Your task to perform on an android device: Open Android settings Image 0: 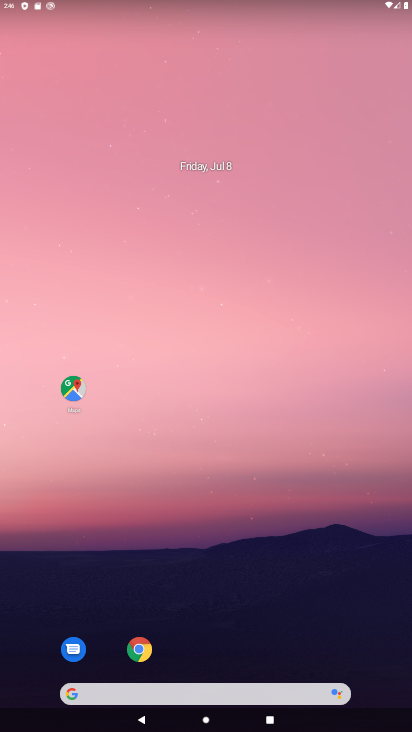
Step 0: drag from (204, 676) to (204, 177)
Your task to perform on an android device: Open Android settings Image 1: 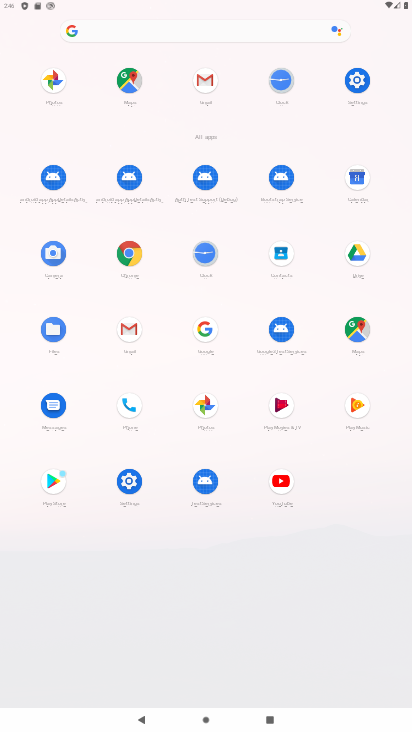
Step 1: click (342, 76)
Your task to perform on an android device: Open Android settings Image 2: 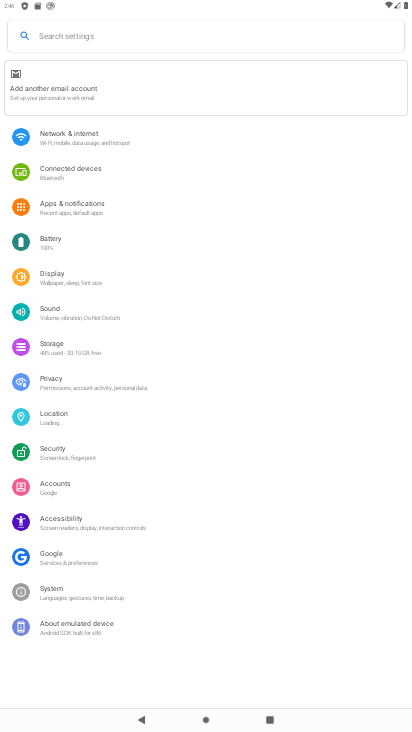
Step 2: drag from (237, 467) to (215, 141)
Your task to perform on an android device: Open Android settings Image 3: 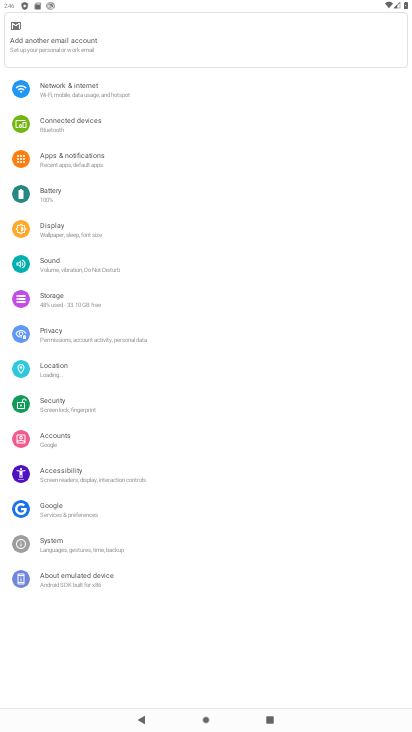
Step 3: click (51, 593)
Your task to perform on an android device: Open Android settings Image 4: 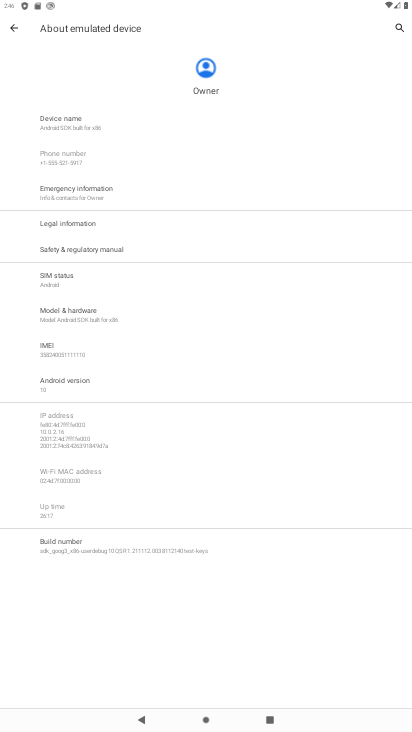
Step 4: drag from (173, 226) to (148, 661)
Your task to perform on an android device: Open Android settings Image 5: 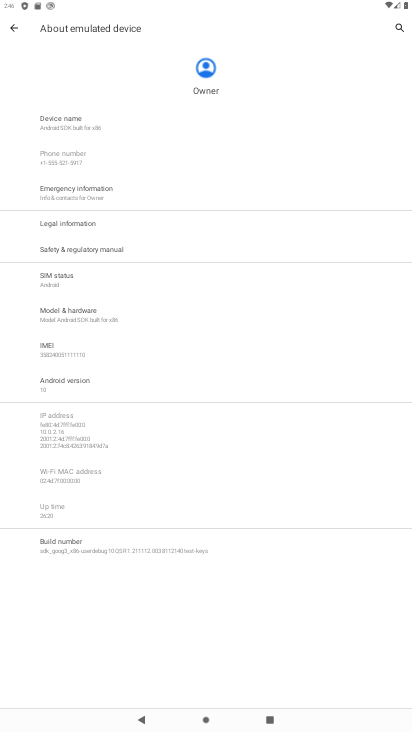
Step 5: click (15, 39)
Your task to perform on an android device: Open Android settings Image 6: 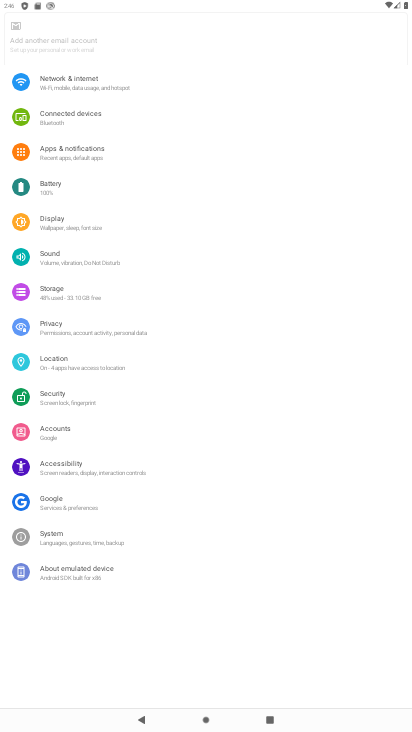
Step 6: task complete